Your task to perform on an android device: change the upload size in google photos Image 0: 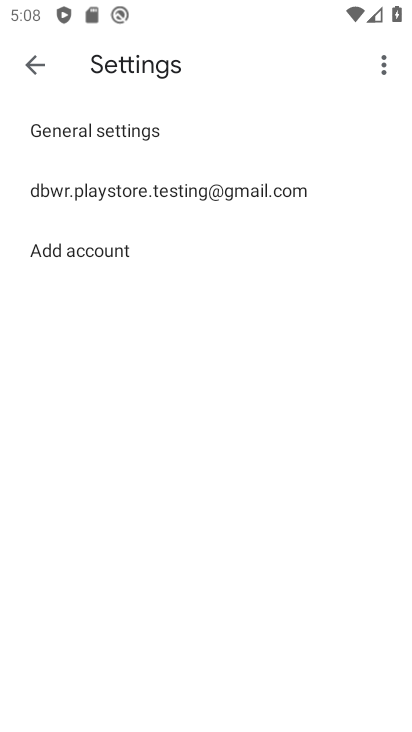
Step 0: press back button
Your task to perform on an android device: change the upload size in google photos Image 1: 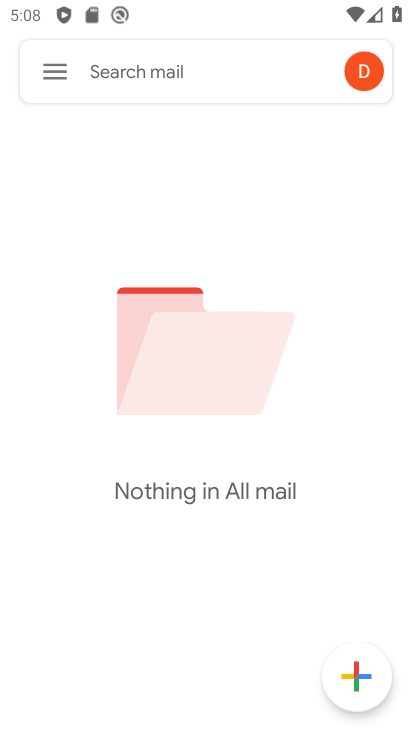
Step 1: press home button
Your task to perform on an android device: change the upload size in google photos Image 2: 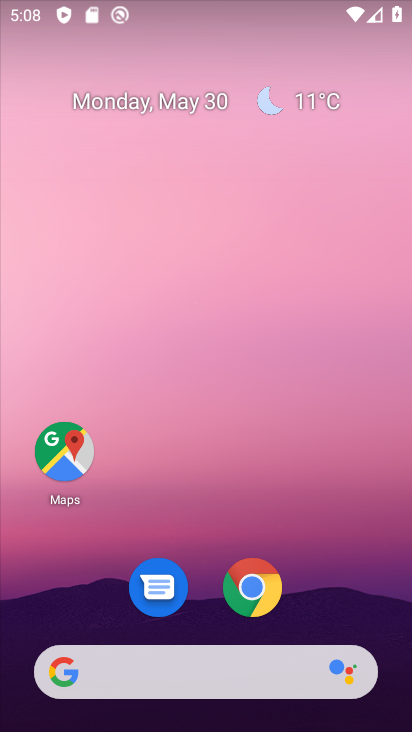
Step 2: drag from (326, 565) to (263, 8)
Your task to perform on an android device: change the upload size in google photos Image 3: 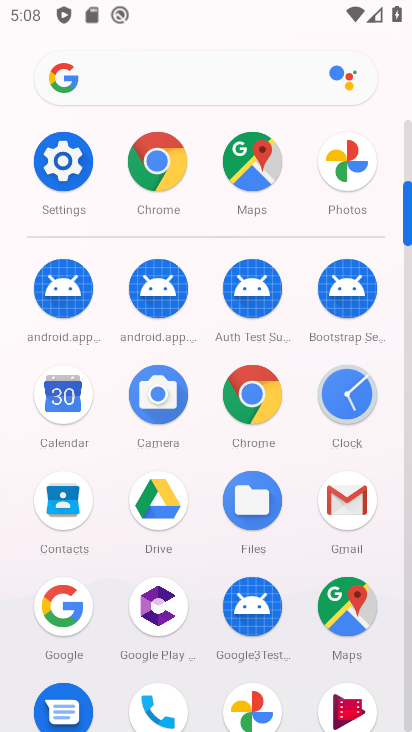
Step 3: drag from (16, 546) to (30, 233)
Your task to perform on an android device: change the upload size in google photos Image 4: 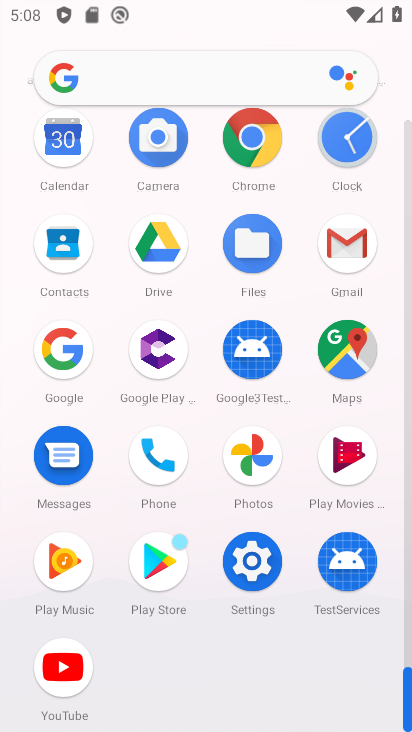
Step 4: click (255, 456)
Your task to perform on an android device: change the upload size in google photos Image 5: 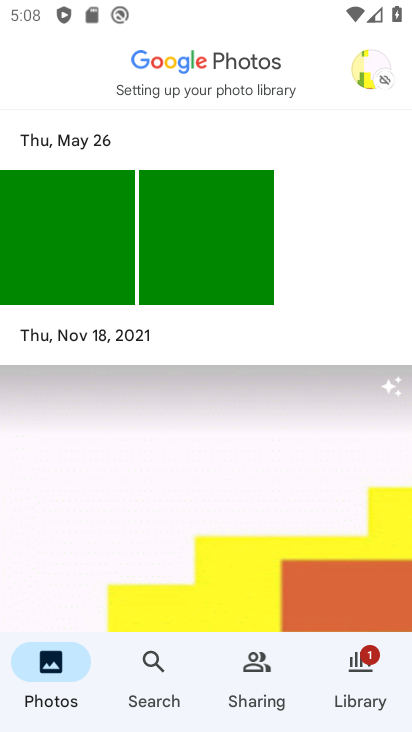
Step 5: click (362, 68)
Your task to perform on an android device: change the upload size in google photos Image 6: 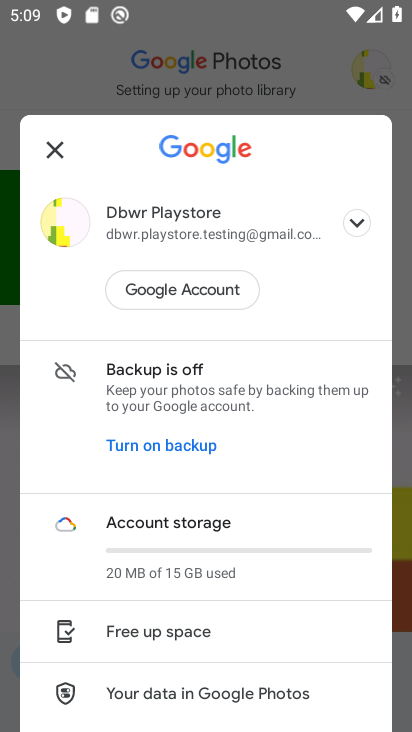
Step 6: drag from (229, 620) to (239, 318)
Your task to perform on an android device: change the upload size in google photos Image 7: 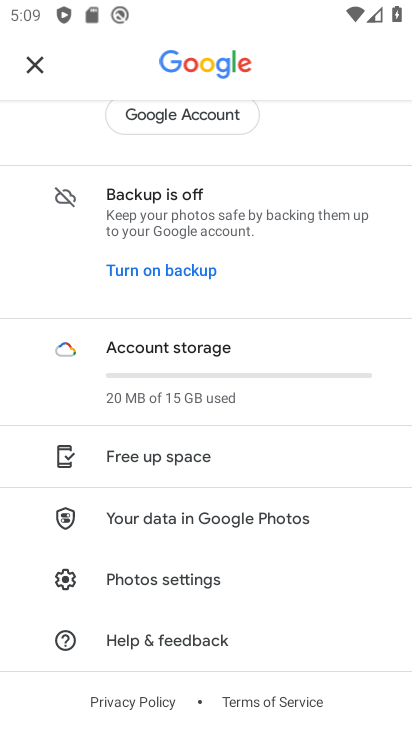
Step 7: click (187, 589)
Your task to perform on an android device: change the upload size in google photos Image 8: 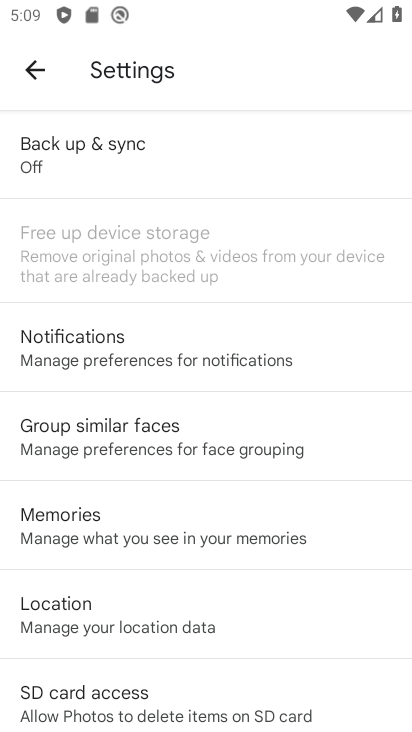
Step 8: click (134, 131)
Your task to perform on an android device: change the upload size in google photos Image 9: 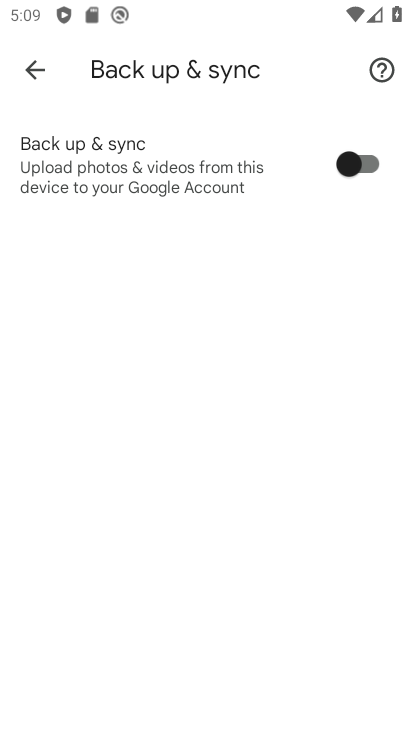
Step 9: task complete